Your task to perform on an android device: find which apps use the phone's location Image 0: 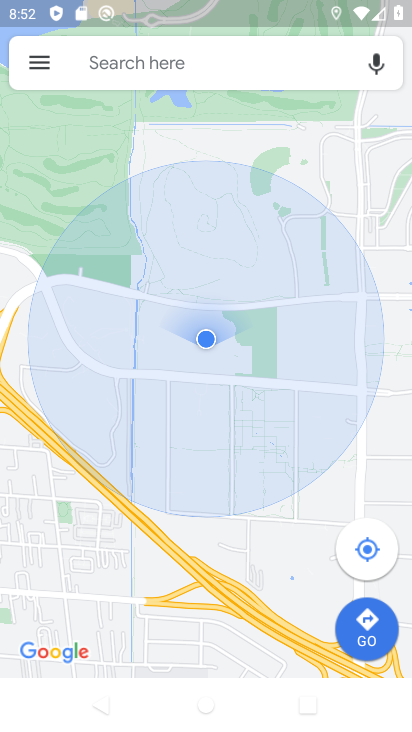
Step 0: press home button
Your task to perform on an android device: find which apps use the phone's location Image 1: 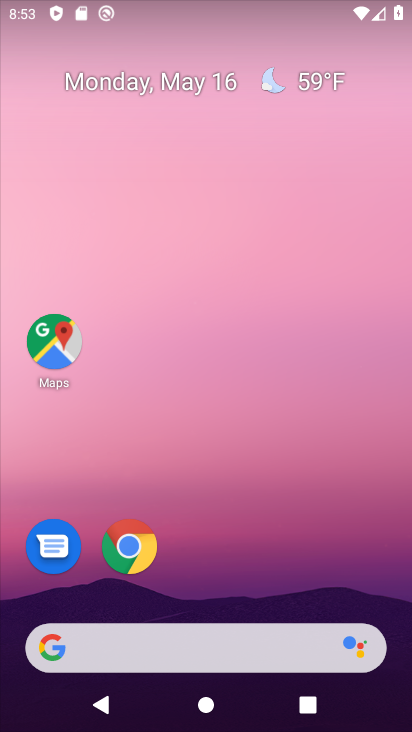
Step 1: drag from (323, 602) to (294, 103)
Your task to perform on an android device: find which apps use the phone's location Image 2: 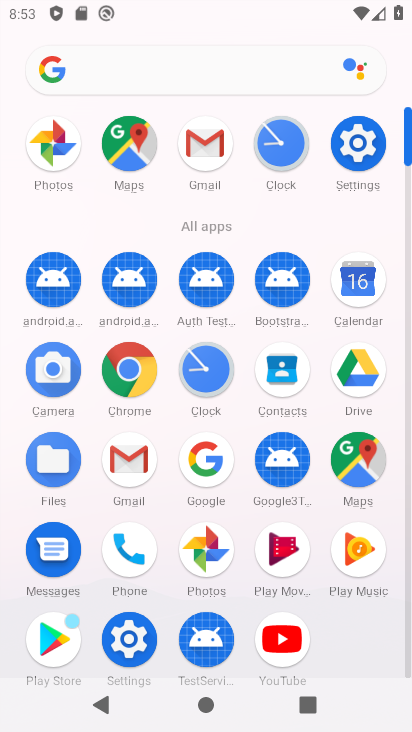
Step 2: click (343, 146)
Your task to perform on an android device: find which apps use the phone's location Image 3: 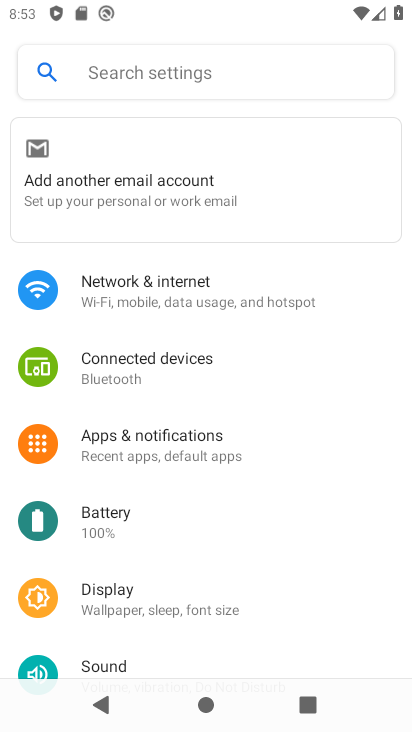
Step 3: drag from (240, 640) to (266, 159)
Your task to perform on an android device: find which apps use the phone's location Image 4: 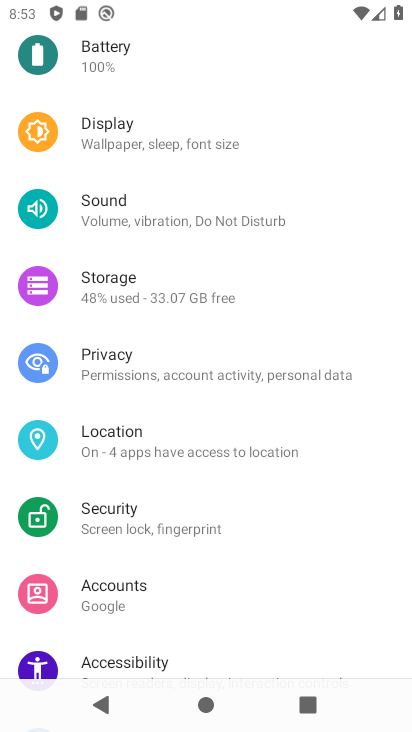
Step 4: click (144, 458)
Your task to perform on an android device: find which apps use the phone's location Image 5: 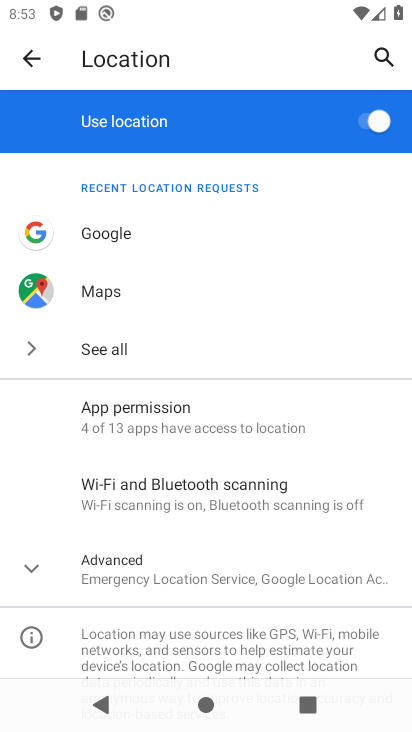
Step 5: click (35, 330)
Your task to perform on an android device: find which apps use the phone's location Image 6: 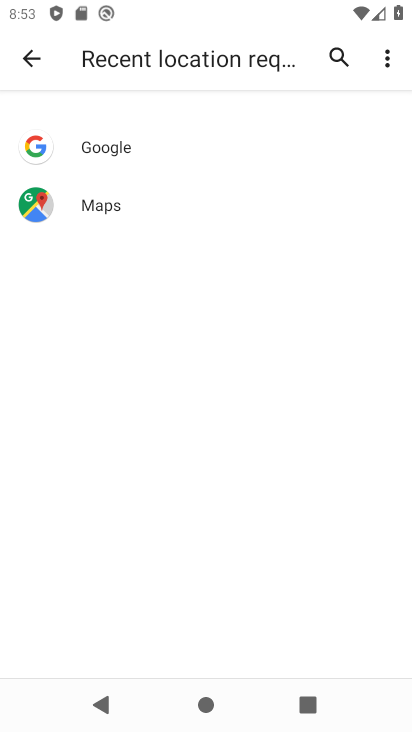
Step 6: task complete